Your task to perform on an android device: open chrome privacy settings Image 0: 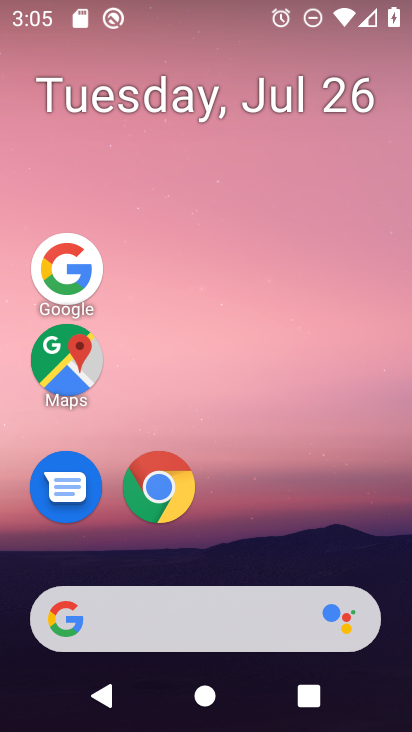
Step 0: drag from (208, 592) to (286, 11)
Your task to perform on an android device: open chrome privacy settings Image 1: 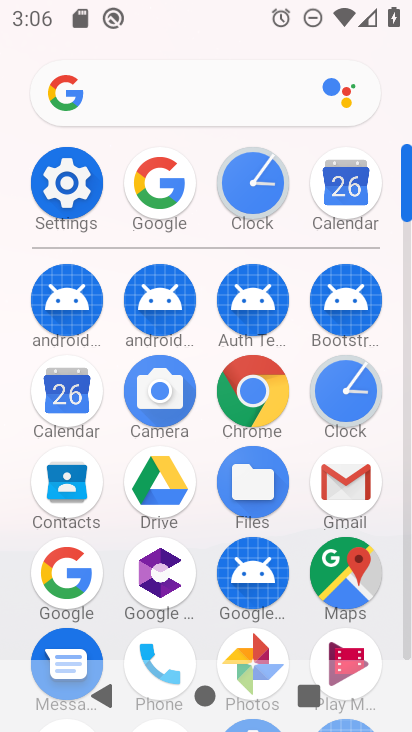
Step 1: click (255, 394)
Your task to perform on an android device: open chrome privacy settings Image 2: 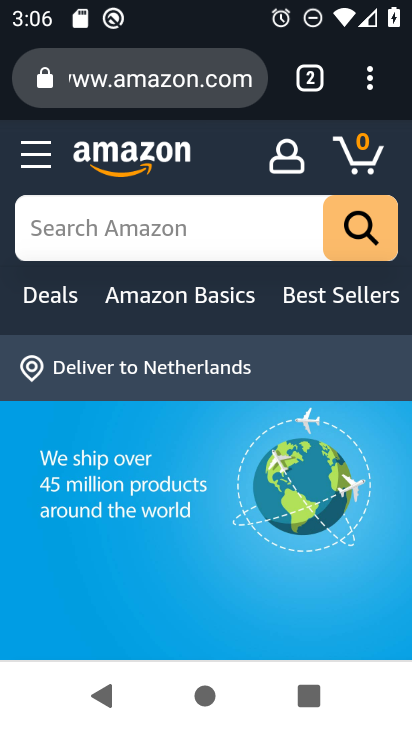
Step 2: click (374, 101)
Your task to perform on an android device: open chrome privacy settings Image 3: 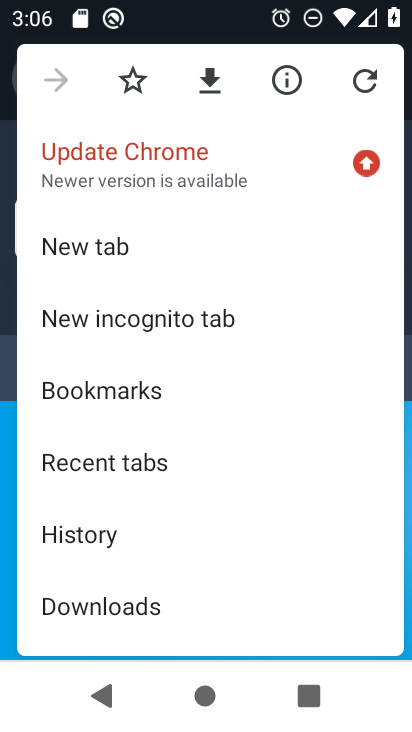
Step 3: drag from (222, 488) to (256, 211)
Your task to perform on an android device: open chrome privacy settings Image 4: 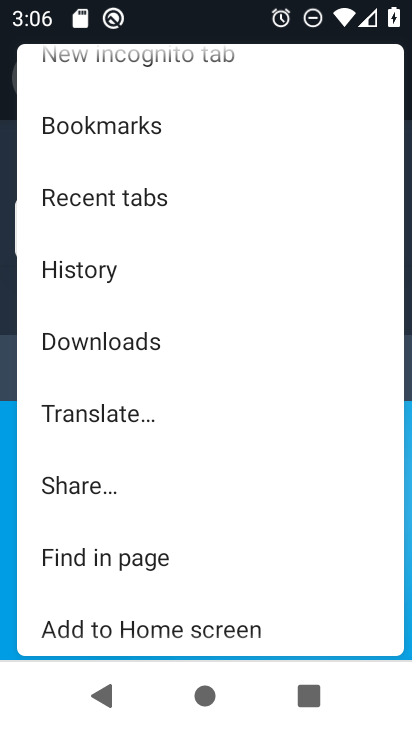
Step 4: drag from (164, 562) to (203, 250)
Your task to perform on an android device: open chrome privacy settings Image 5: 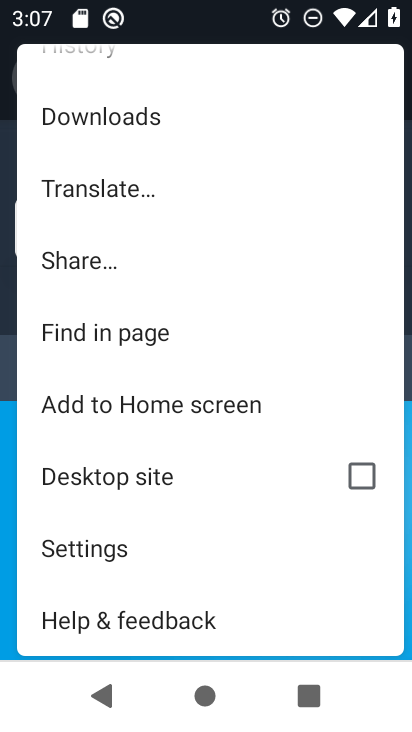
Step 5: click (144, 544)
Your task to perform on an android device: open chrome privacy settings Image 6: 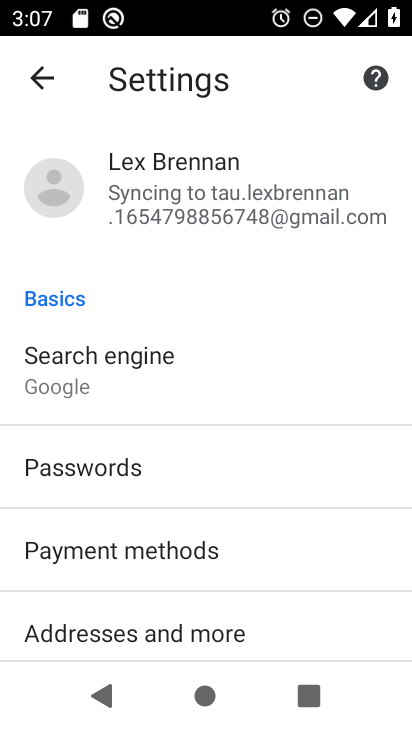
Step 6: drag from (148, 606) to (226, 124)
Your task to perform on an android device: open chrome privacy settings Image 7: 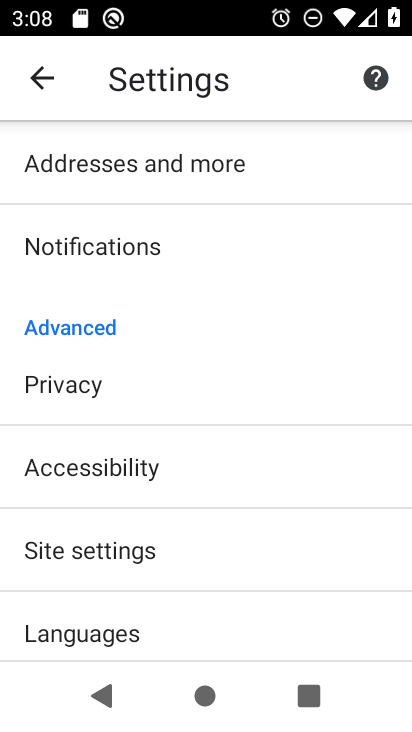
Step 7: click (97, 399)
Your task to perform on an android device: open chrome privacy settings Image 8: 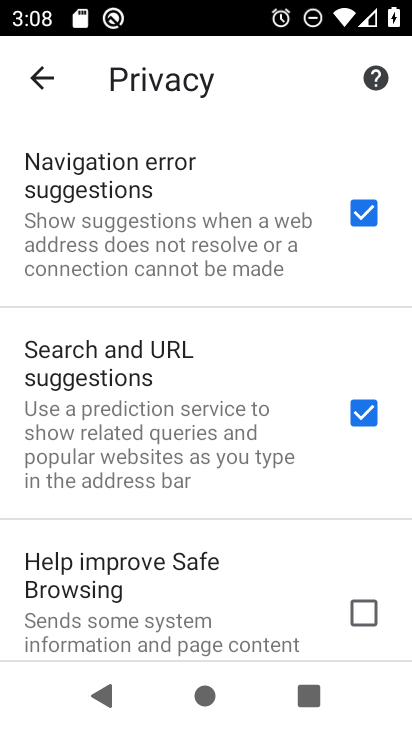
Step 8: task complete